Your task to perform on an android device: Is it going to rain today? Image 0: 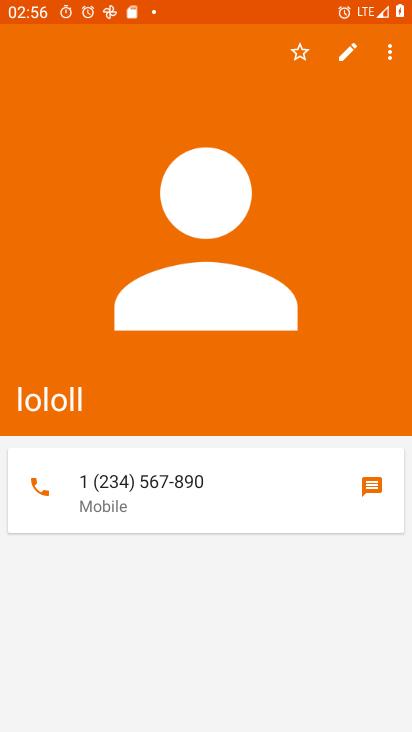
Step 0: press home button
Your task to perform on an android device: Is it going to rain today? Image 1: 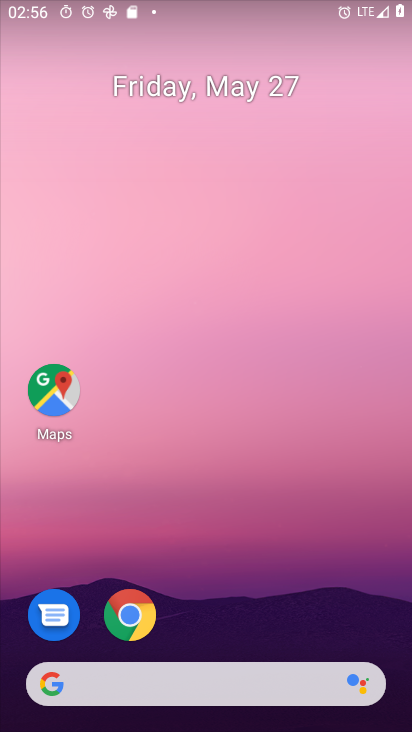
Step 1: click (236, 688)
Your task to perform on an android device: Is it going to rain today? Image 2: 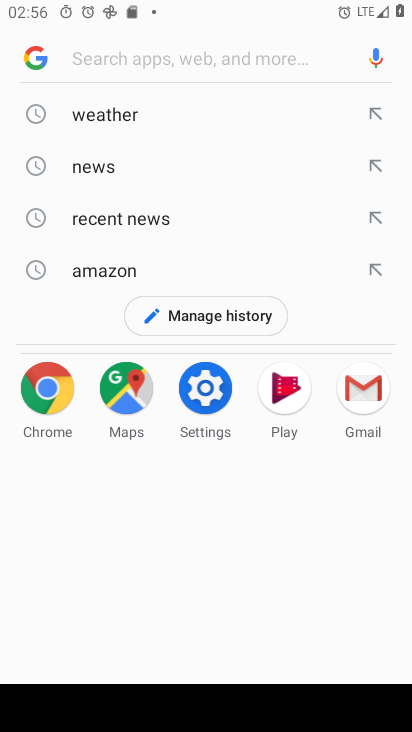
Step 2: click (144, 115)
Your task to perform on an android device: Is it going to rain today? Image 3: 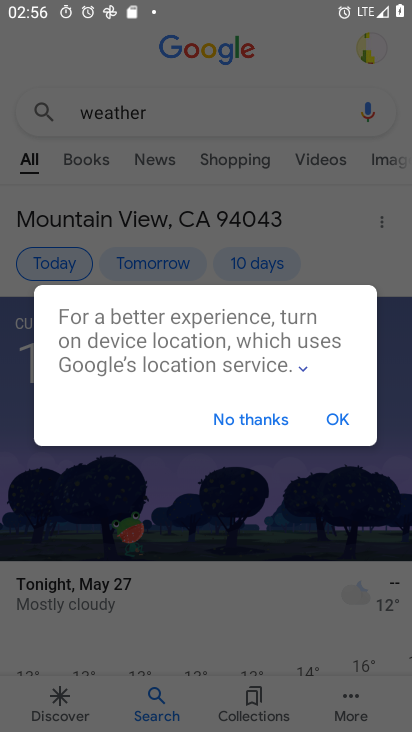
Step 3: click (59, 264)
Your task to perform on an android device: Is it going to rain today? Image 4: 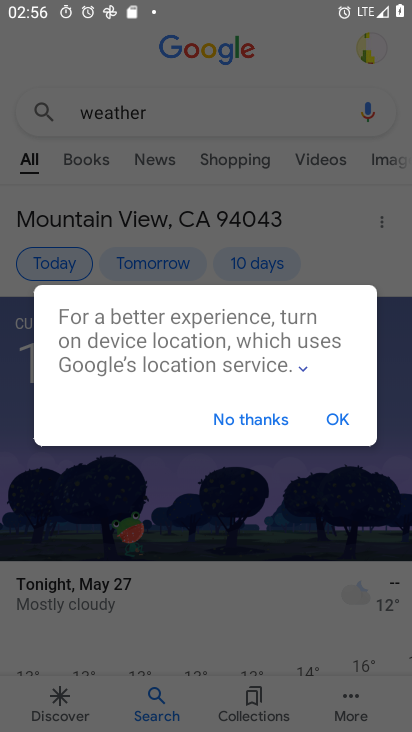
Step 4: click (259, 422)
Your task to perform on an android device: Is it going to rain today? Image 5: 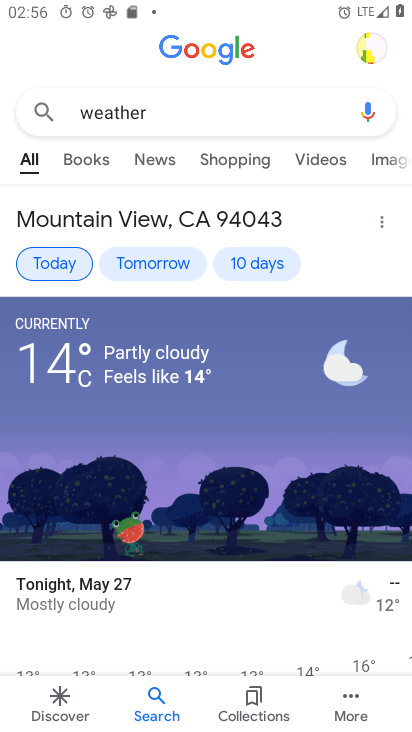
Step 5: click (66, 263)
Your task to perform on an android device: Is it going to rain today? Image 6: 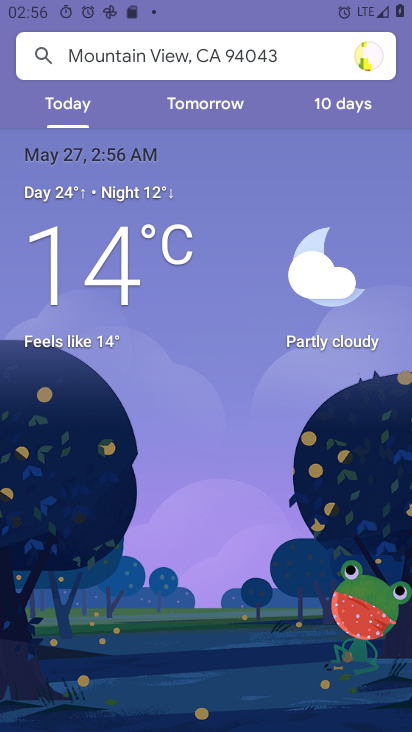
Step 6: task complete